Your task to perform on an android device: Open Youtube and go to the subscriptions tab Image 0: 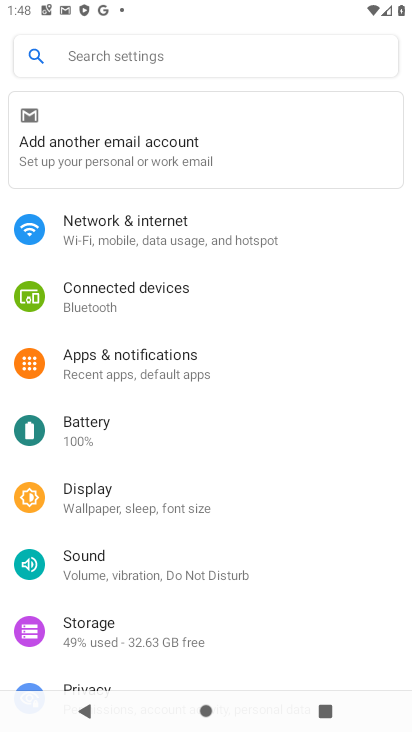
Step 0: press back button
Your task to perform on an android device: Open Youtube and go to the subscriptions tab Image 1: 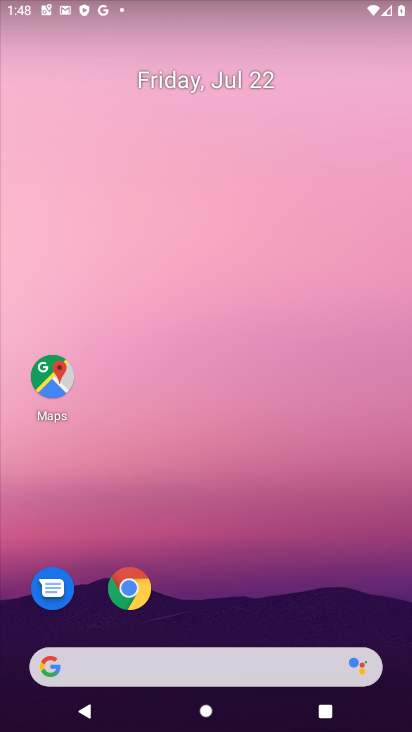
Step 1: drag from (257, 575) to (344, 32)
Your task to perform on an android device: Open Youtube and go to the subscriptions tab Image 2: 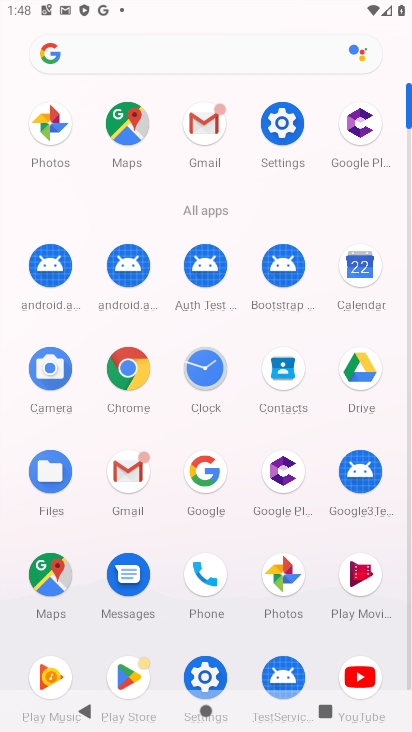
Step 2: click (362, 677)
Your task to perform on an android device: Open Youtube and go to the subscriptions tab Image 3: 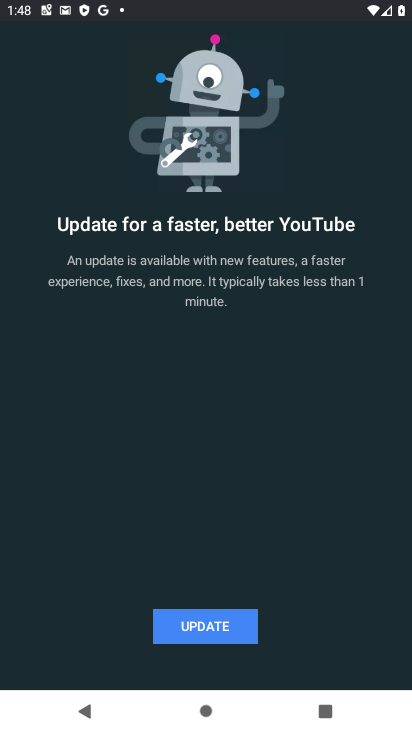
Step 3: press home button
Your task to perform on an android device: Open Youtube and go to the subscriptions tab Image 4: 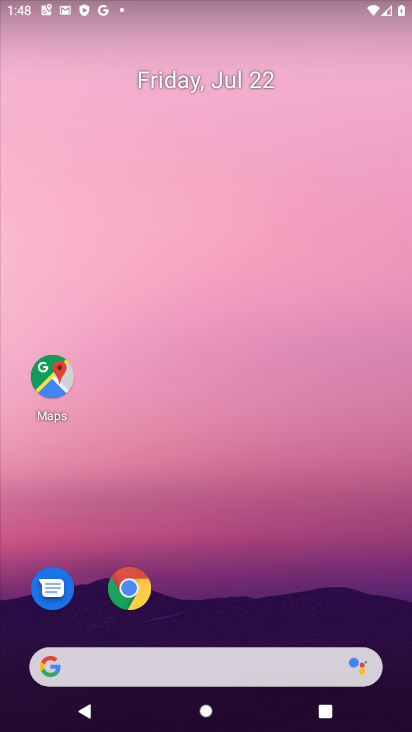
Step 4: drag from (192, 627) to (311, 52)
Your task to perform on an android device: Open Youtube and go to the subscriptions tab Image 5: 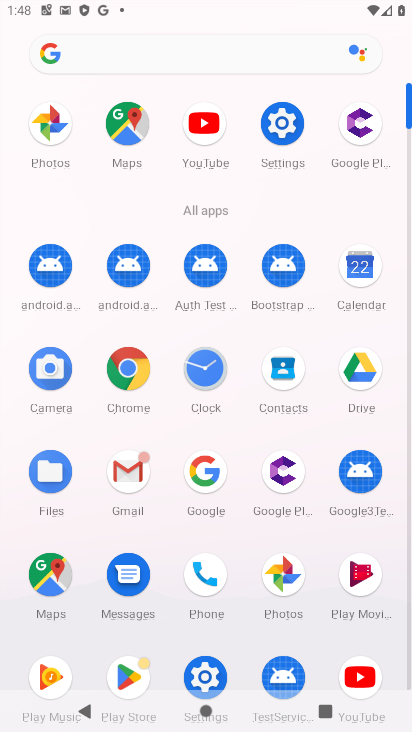
Step 5: click (207, 125)
Your task to perform on an android device: Open Youtube and go to the subscriptions tab Image 6: 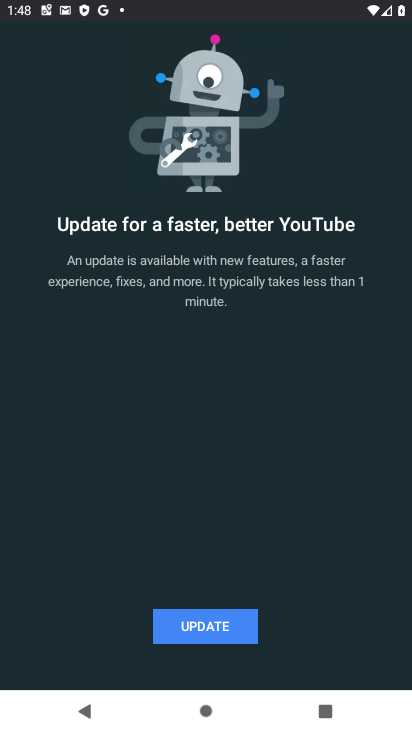
Step 6: click (192, 628)
Your task to perform on an android device: Open Youtube and go to the subscriptions tab Image 7: 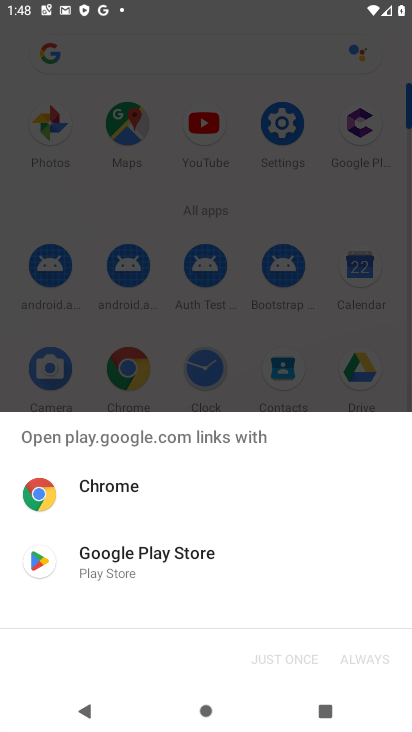
Step 7: click (130, 567)
Your task to perform on an android device: Open Youtube and go to the subscriptions tab Image 8: 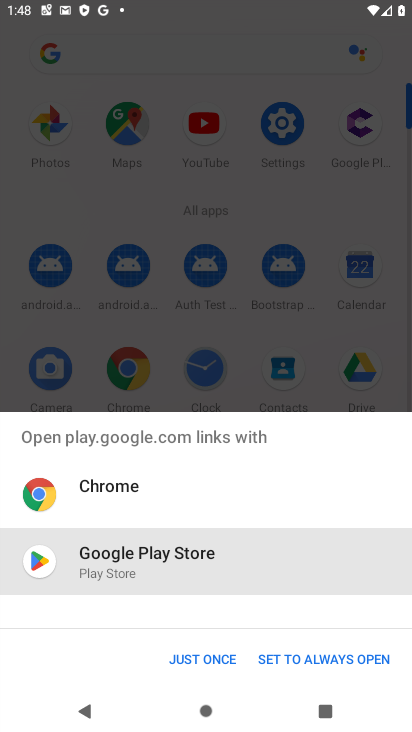
Step 8: click (206, 668)
Your task to perform on an android device: Open Youtube and go to the subscriptions tab Image 9: 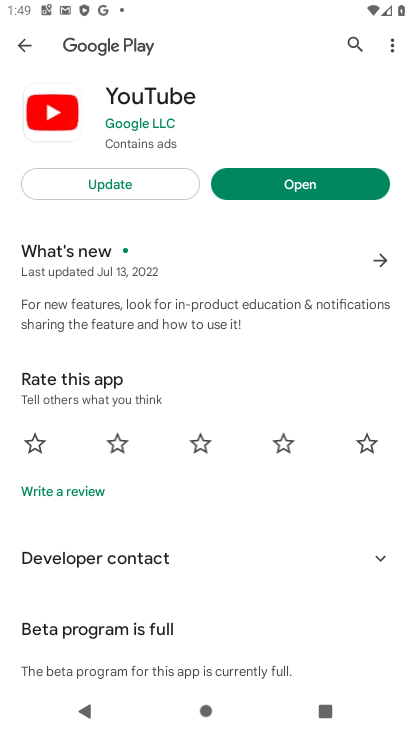
Step 9: click (268, 188)
Your task to perform on an android device: Open Youtube and go to the subscriptions tab Image 10: 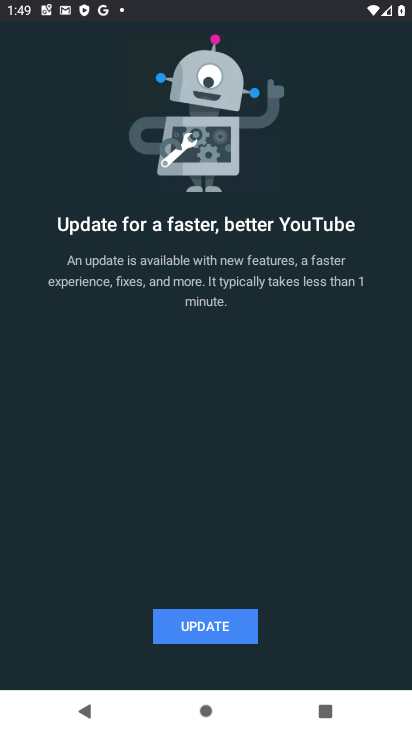
Step 10: click (201, 636)
Your task to perform on an android device: Open Youtube and go to the subscriptions tab Image 11: 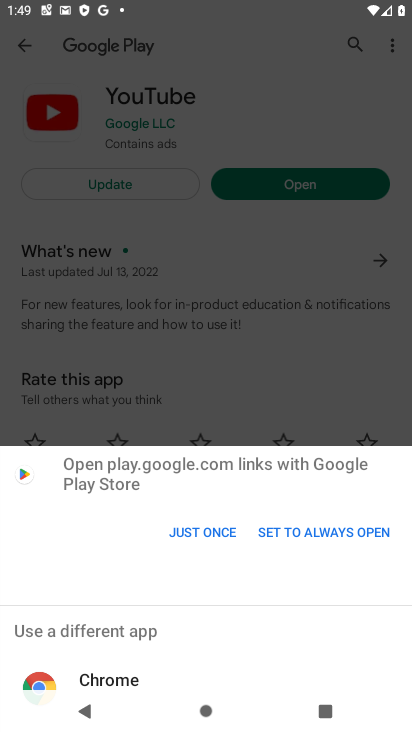
Step 11: click (215, 544)
Your task to perform on an android device: Open Youtube and go to the subscriptions tab Image 12: 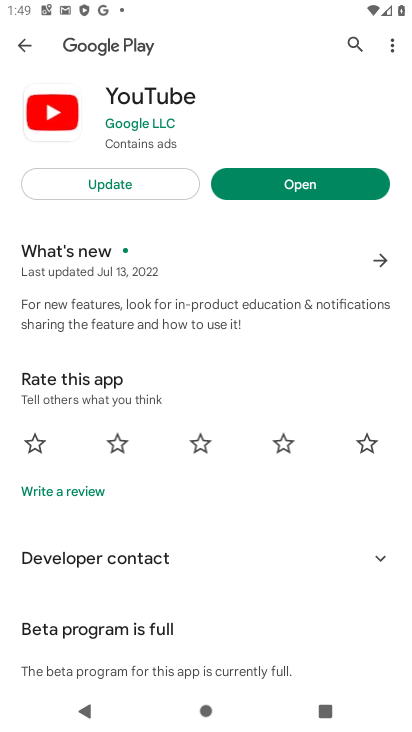
Step 12: click (305, 184)
Your task to perform on an android device: Open Youtube and go to the subscriptions tab Image 13: 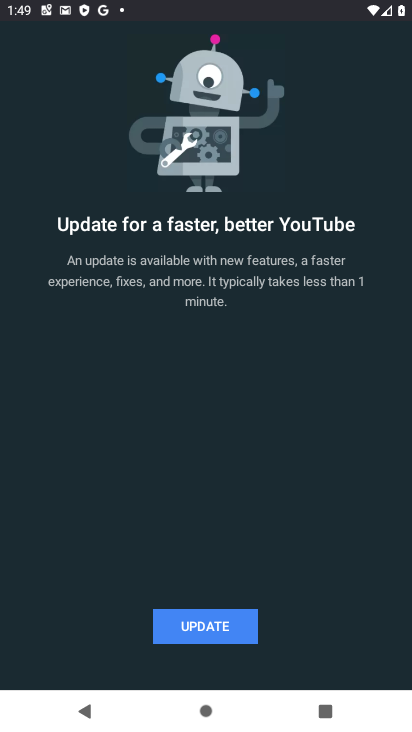
Step 13: click (211, 623)
Your task to perform on an android device: Open Youtube and go to the subscriptions tab Image 14: 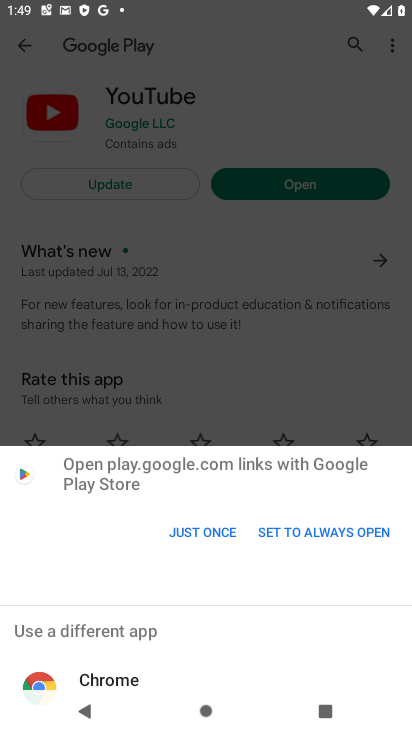
Step 14: click (200, 541)
Your task to perform on an android device: Open Youtube and go to the subscriptions tab Image 15: 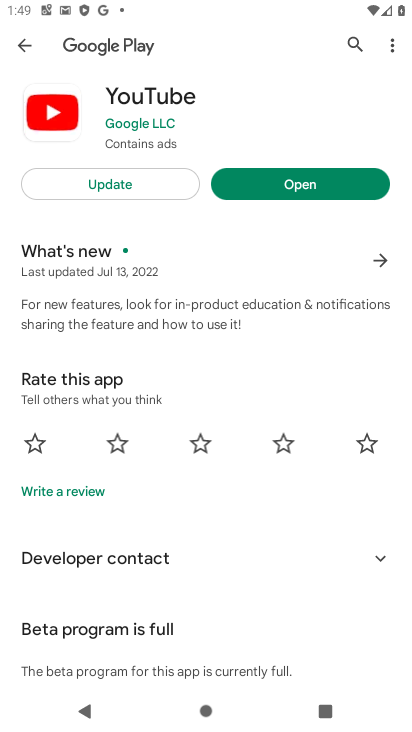
Step 15: click (122, 180)
Your task to perform on an android device: Open Youtube and go to the subscriptions tab Image 16: 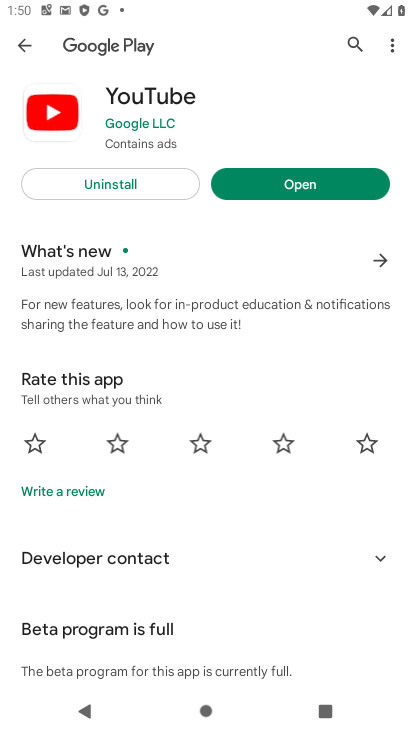
Step 16: click (303, 181)
Your task to perform on an android device: Open Youtube and go to the subscriptions tab Image 17: 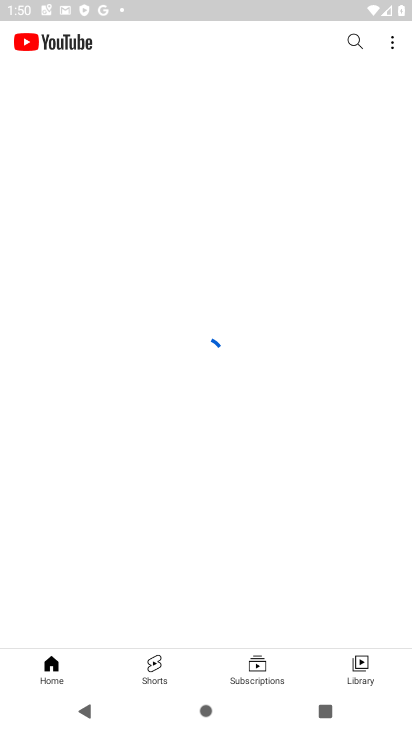
Step 17: click (248, 660)
Your task to perform on an android device: Open Youtube and go to the subscriptions tab Image 18: 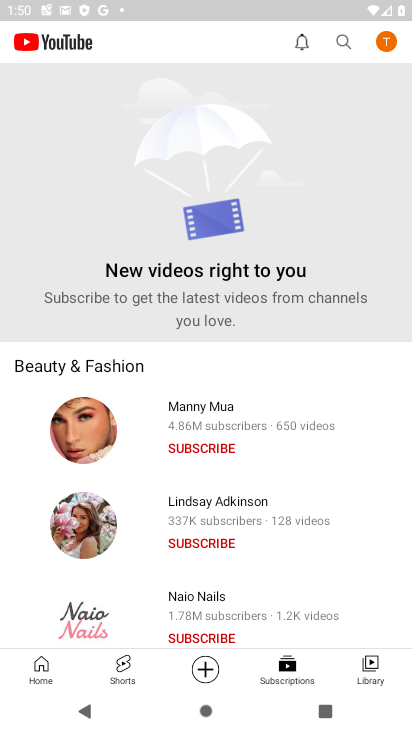
Step 18: task complete